Your task to perform on an android device: search for starred emails in the gmail app Image 0: 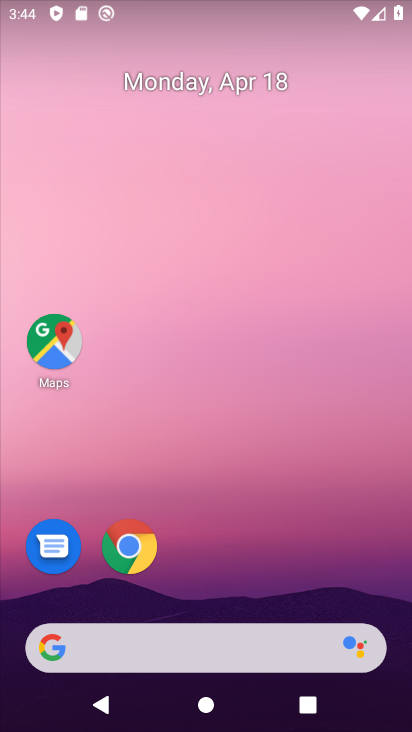
Step 0: drag from (294, 571) to (220, 100)
Your task to perform on an android device: search for starred emails in the gmail app Image 1: 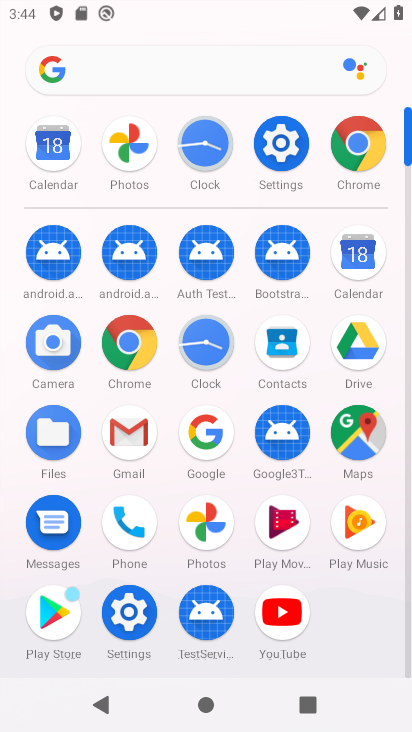
Step 1: click (134, 437)
Your task to perform on an android device: search for starred emails in the gmail app Image 2: 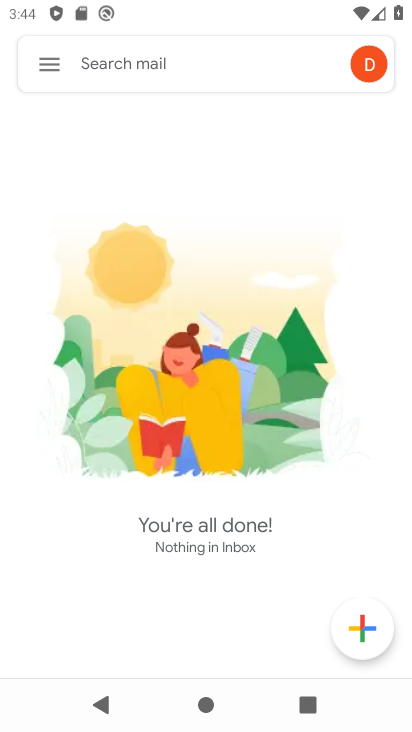
Step 2: click (46, 60)
Your task to perform on an android device: search for starred emails in the gmail app Image 3: 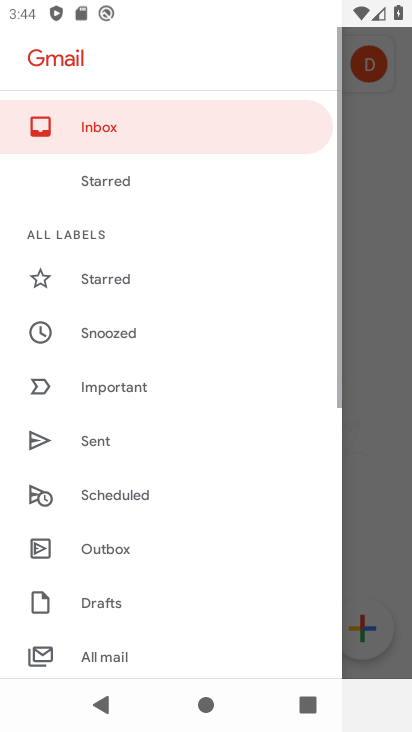
Step 3: click (105, 303)
Your task to perform on an android device: search for starred emails in the gmail app Image 4: 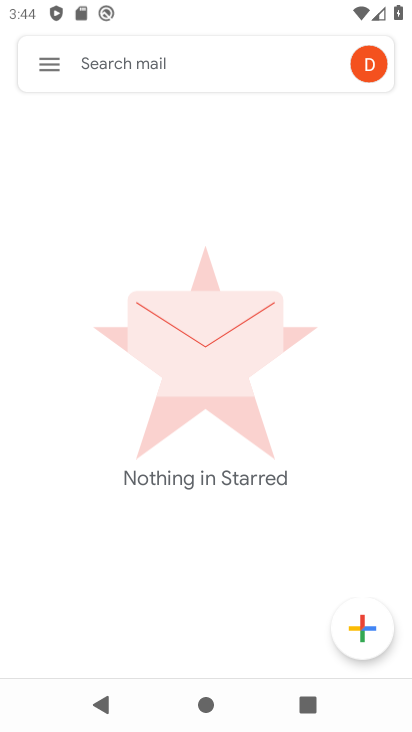
Step 4: task complete